Your task to perform on an android device: turn on bluetooth scan Image 0: 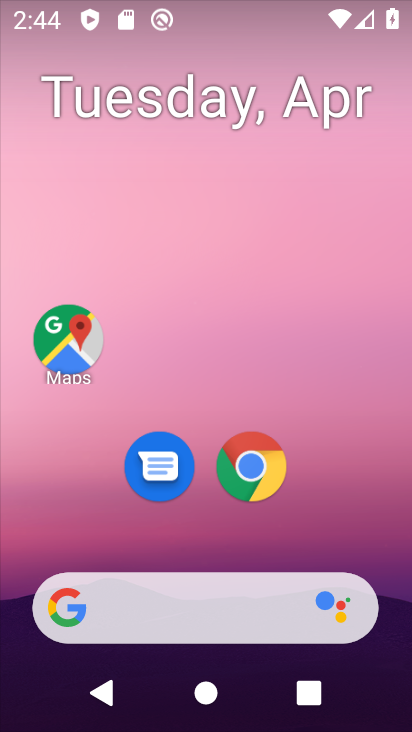
Step 0: drag from (199, 553) to (377, 475)
Your task to perform on an android device: turn on bluetooth scan Image 1: 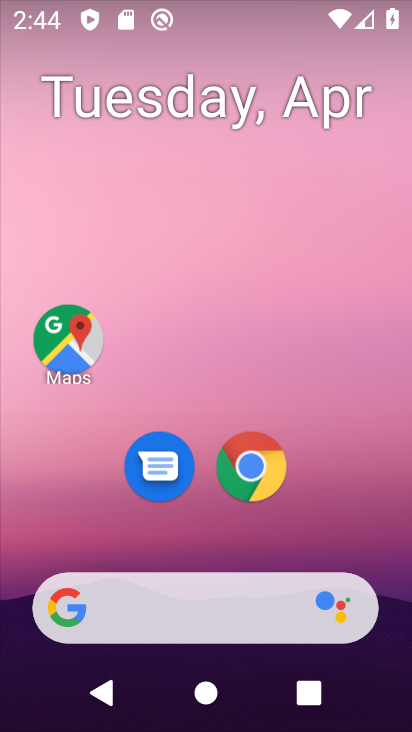
Step 1: drag from (213, 562) to (161, 10)
Your task to perform on an android device: turn on bluetooth scan Image 2: 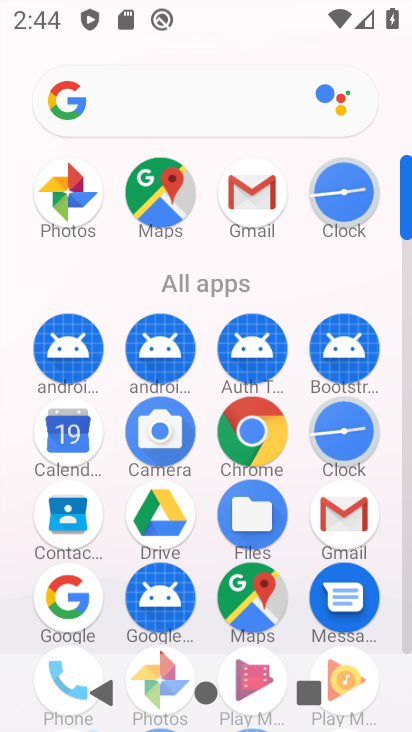
Step 2: drag from (200, 542) to (189, 36)
Your task to perform on an android device: turn on bluetooth scan Image 3: 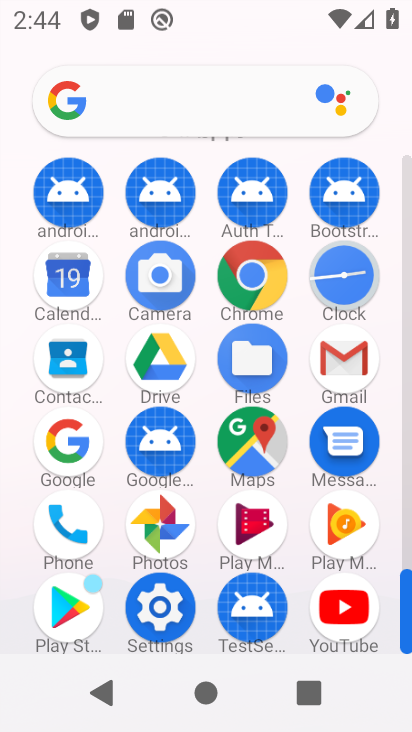
Step 3: click (170, 601)
Your task to perform on an android device: turn on bluetooth scan Image 4: 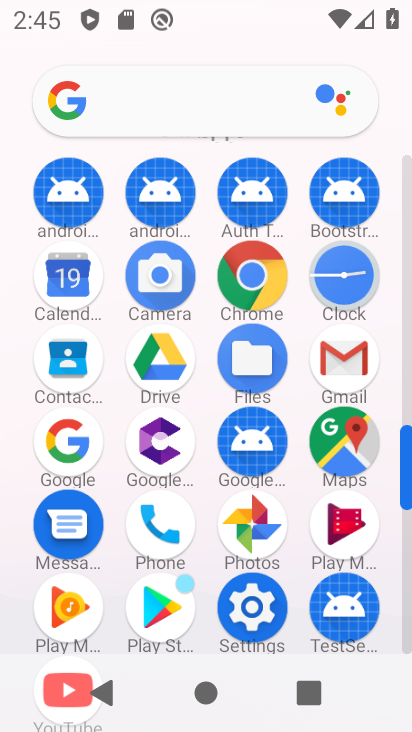
Step 4: click (245, 609)
Your task to perform on an android device: turn on bluetooth scan Image 5: 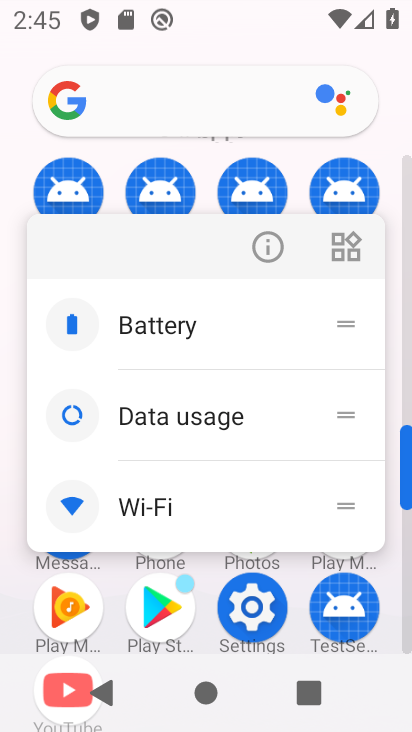
Step 5: click (241, 602)
Your task to perform on an android device: turn on bluetooth scan Image 6: 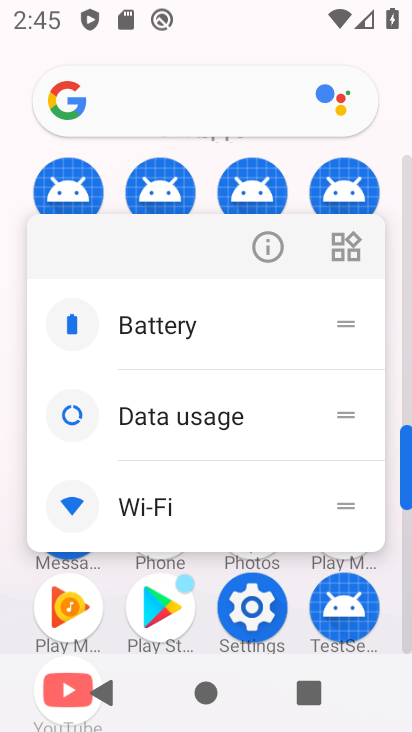
Step 6: click (252, 609)
Your task to perform on an android device: turn on bluetooth scan Image 7: 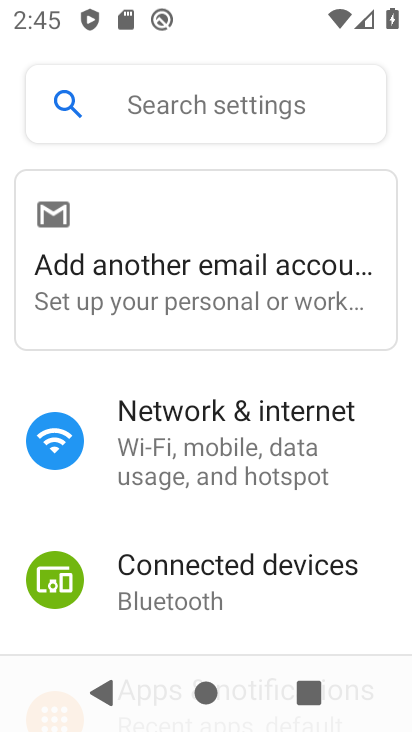
Step 7: drag from (209, 614) to (144, 64)
Your task to perform on an android device: turn on bluetooth scan Image 8: 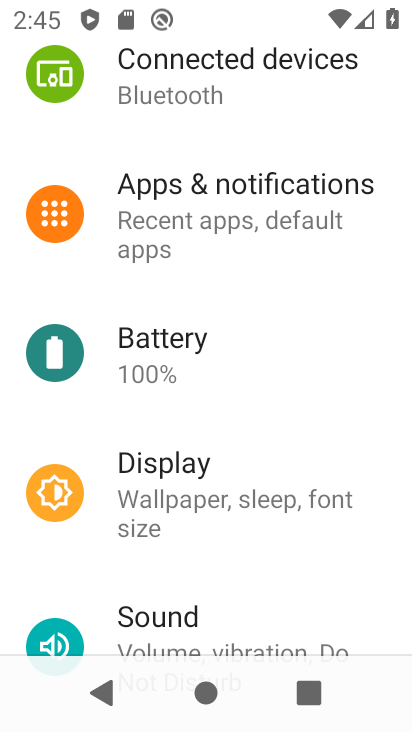
Step 8: drag from (252, 616) to (167, 97)
Your task to perform on an android device: turn on bluetooth scan Image 9: 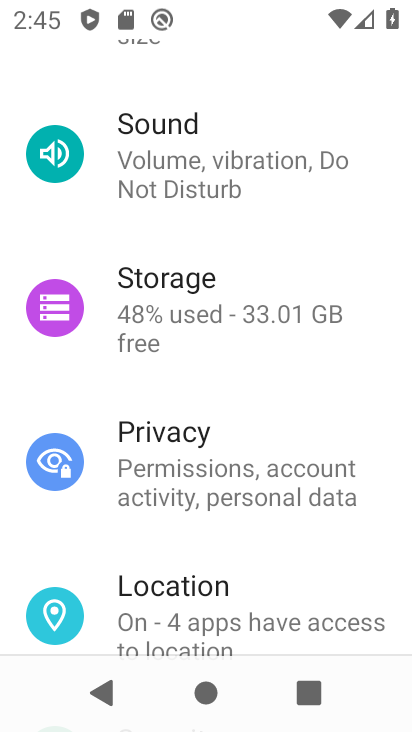
Step 9: click (158, 614)
Your task to perform on an android device: turn on bluetooth scan Image 10: 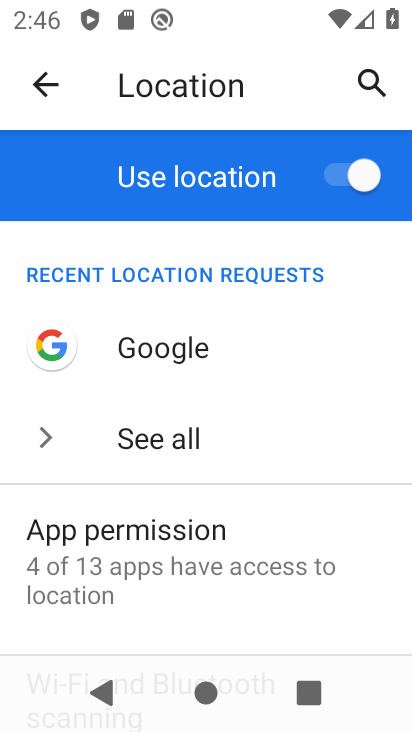
Step 10: drag from (170, 608) to (100, 179)
Your task to perform on an android device: turn on bluetooth scan Image 11: 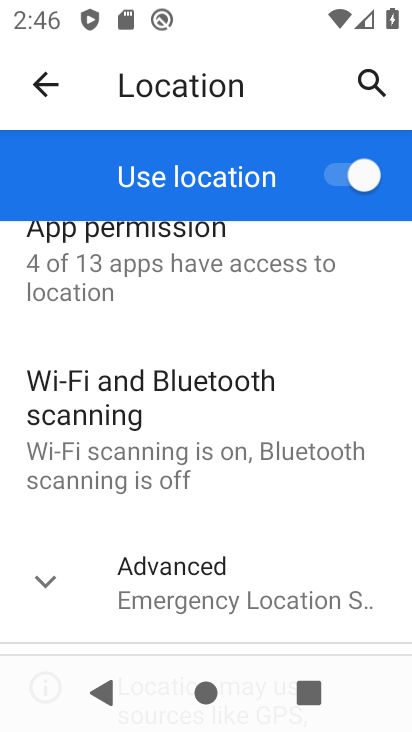
Step 11: click (134, 454)
Your task to perform on an android device: turn on bluetooth scan Image 12: 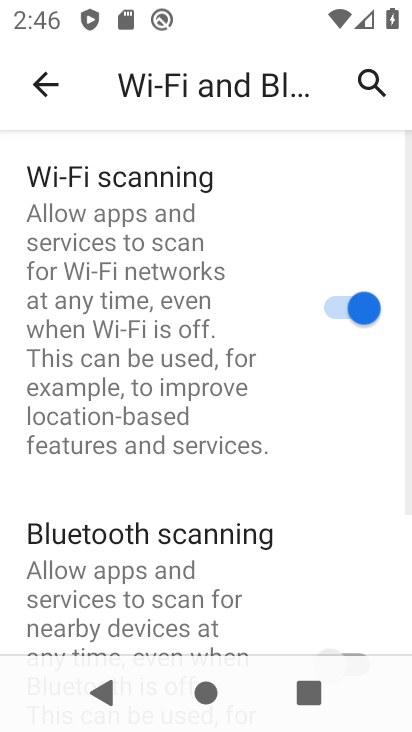
Step 12: click (311, 596)
Your task to perform on an android device: turn on bluetooth scan Image 13: 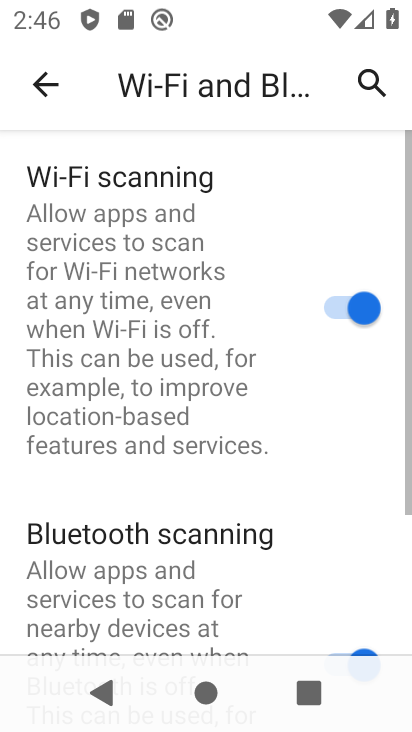
Step 13: task complete